Your task to perform on an android device: Open notification settings Image 0: 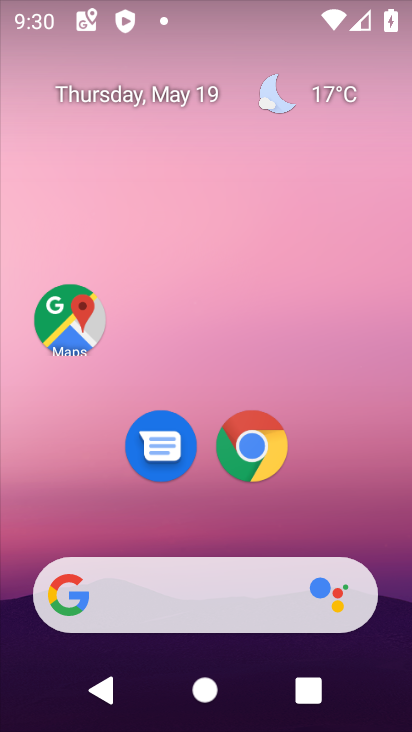
Step 0: drag from (218, 533) to (206, 0)
Your task to perform on an android device: Open notification settings Image 1: 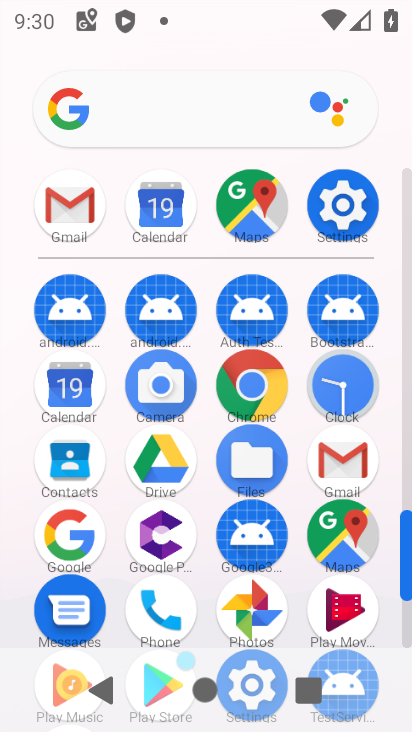
Step 1: click (338, 219)
Your task to perform on an android device: Open notification settings Image 2: 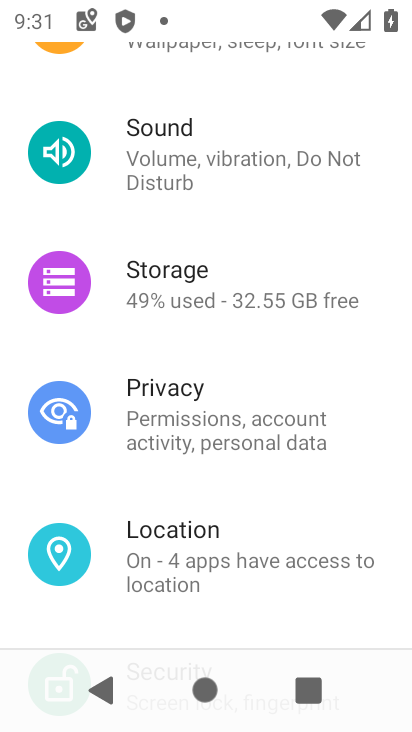
Step 2: drag from (258, 244) to (208, 504)
Your task to perform on an android device: Open notification settings Image 3: 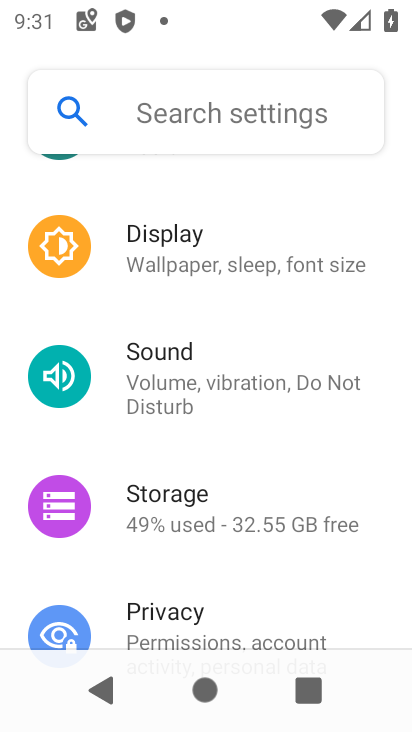
Step 3: drag from (236, 282) to (204, 529)
Your task to perform on an android device: Open notification settings Image 4: 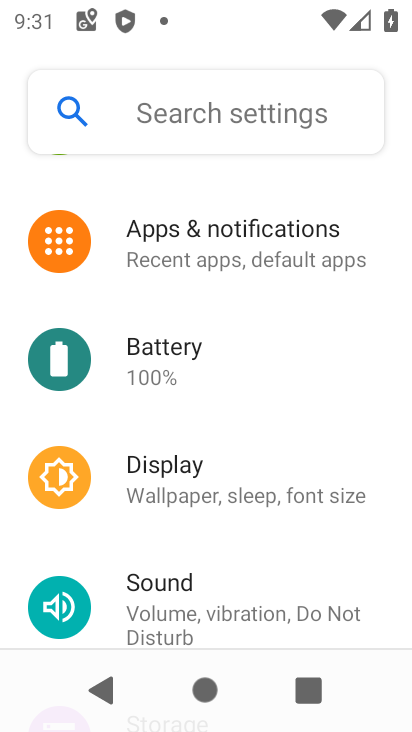
Step 4: click (237, 257)
Your task to perform on an android device: Open notification settings Image 5: 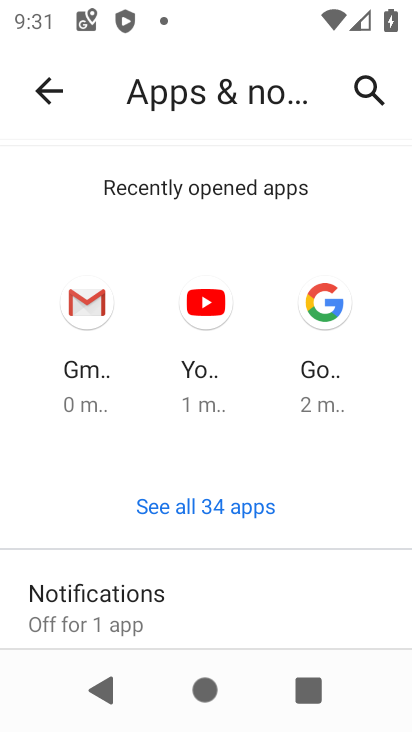
Step 5: click (114, 614)
Your task to perform on an android device: Open notification settings Image 6: 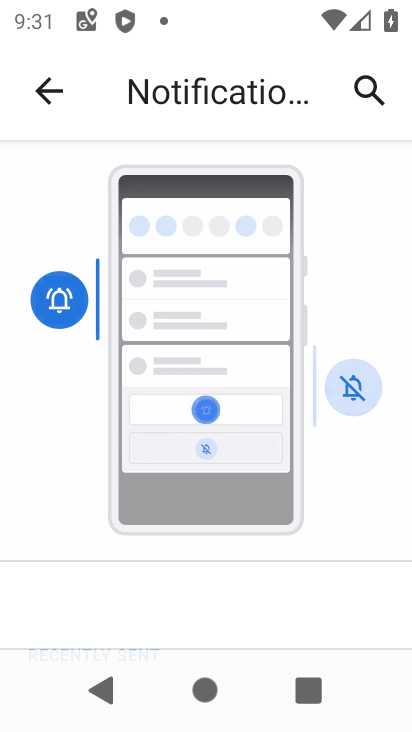
Step 6: task complete